Your task to perform on an android device: open a bookmark in the chrome app Image 0: 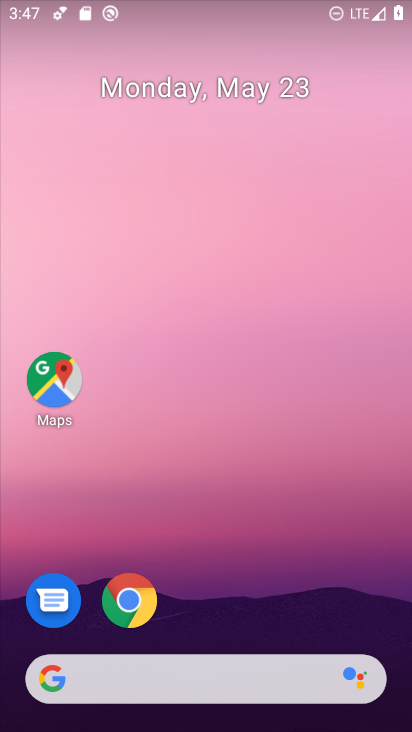
Step 0: click (126, 604)
Your task to perform on an android device: open a bookmark in the chrome app Image 1: 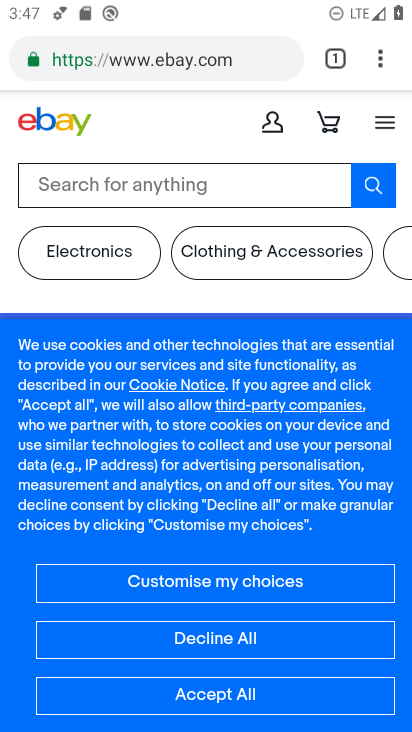
Step 1: click (379, 61)
Your task to perform on an android device: open a bookmark in the chrome app Image 2: 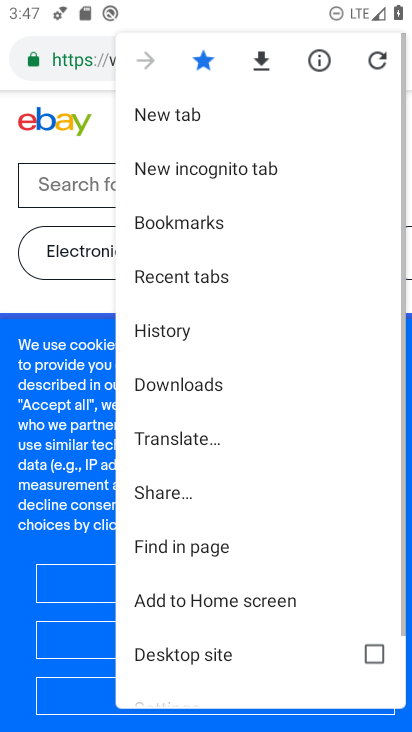
Step 2: click (217, 220)
Your task to perform on an android device: open a bookmark in the chrome app Image 3: 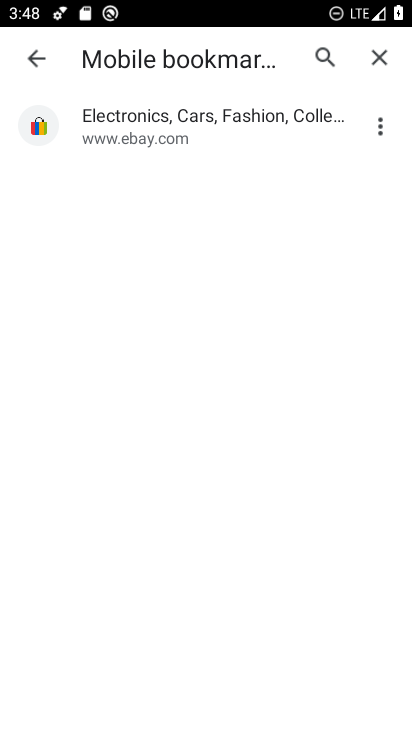
Step 3: click (138, 137)
Your task to perform on an android device: open a bookmark in the chrome app Image 4: 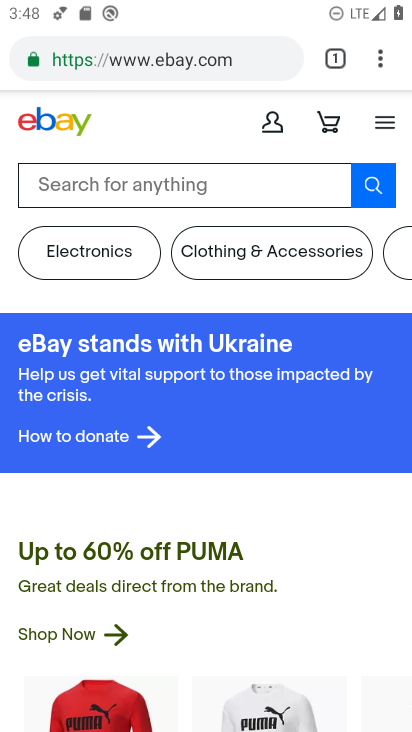
Step 4: task complete